Your task to perform on an android device: Open the web browser Image 0: 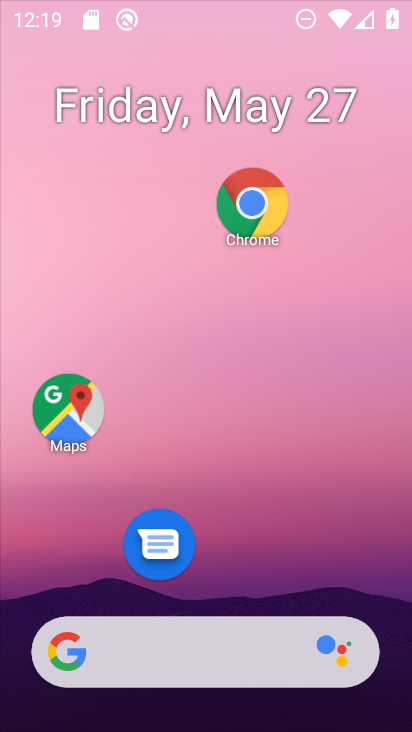
Step 0: drag from (212, 507) to (243, 127)
Your task to perform on an android device: Open the web browser Image 1: 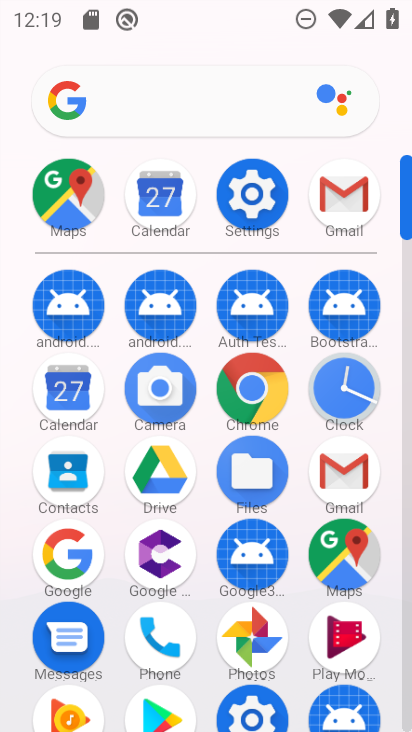
Step 1: click (248, 383)
Your task to perform on an android device: Open the web browser Image 2: 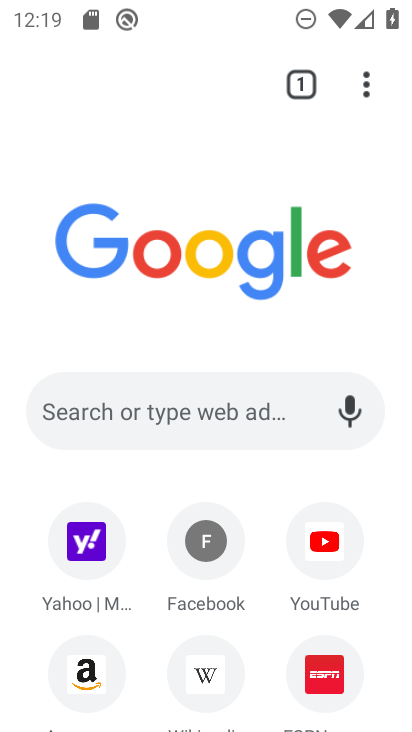
Step 2: task complete